Your task to perform on an android device: add a contact Image 0: 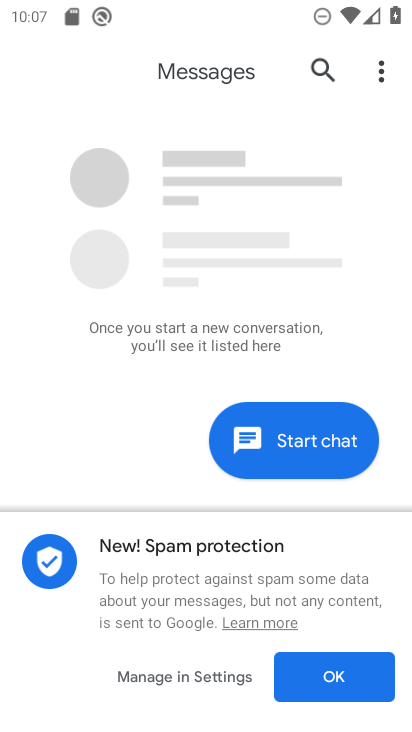
Step 0: press home button
Your task to perform on an android device: add a contact Image 1: 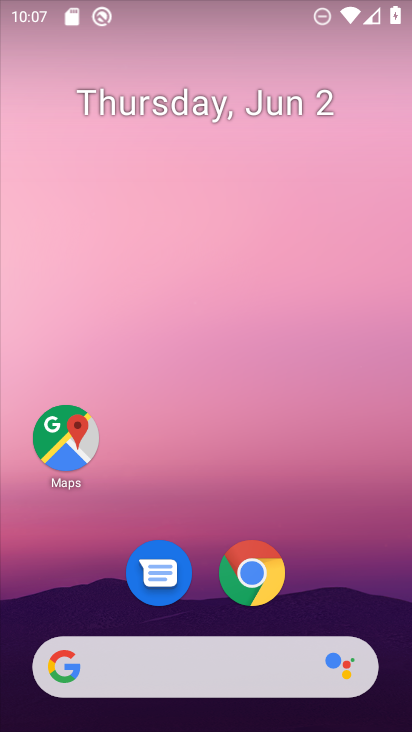
Step 1: drag from (333, 562) to (334, 255)
Your task to perform on an android device: add a contact Image 2: 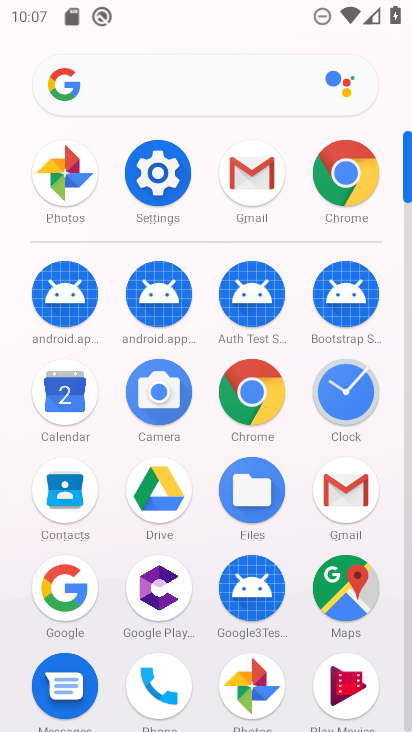
Step 2: click (72, 493)
Your task to perform on an android device: add a contact Image 3: 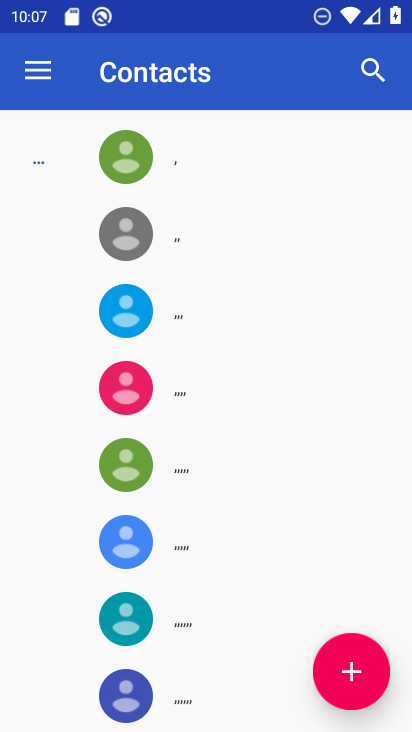
Step 3: click (343, 666)
Your task to perform on an android device: add a contact Image 4: 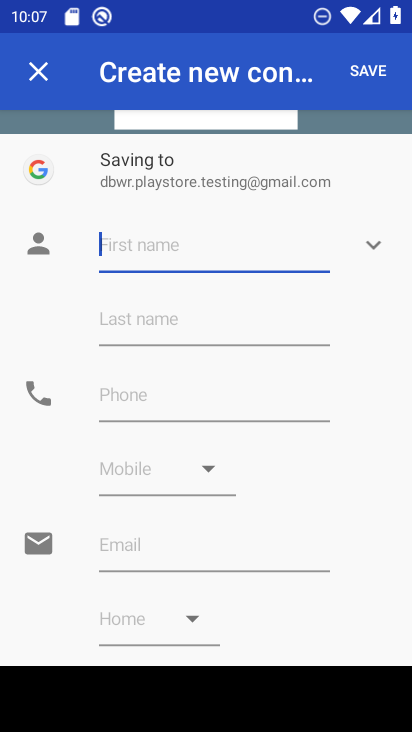
Step 4: click (220, 242)
Your task to perform on an android device: add a contact Image 5: 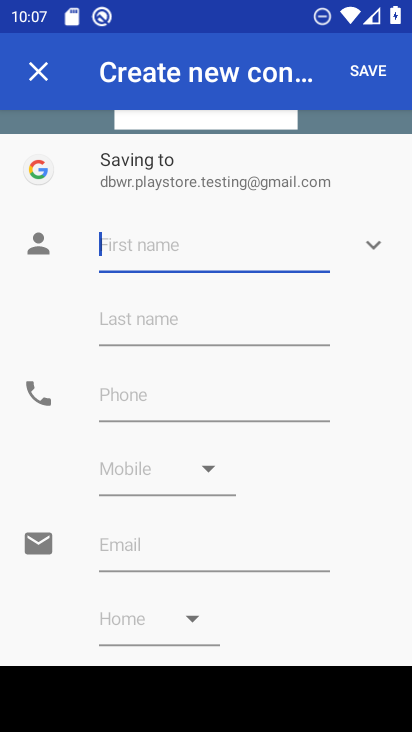
Step 5: type "december"
Your task to perform on an android device: add a contact Image 6: 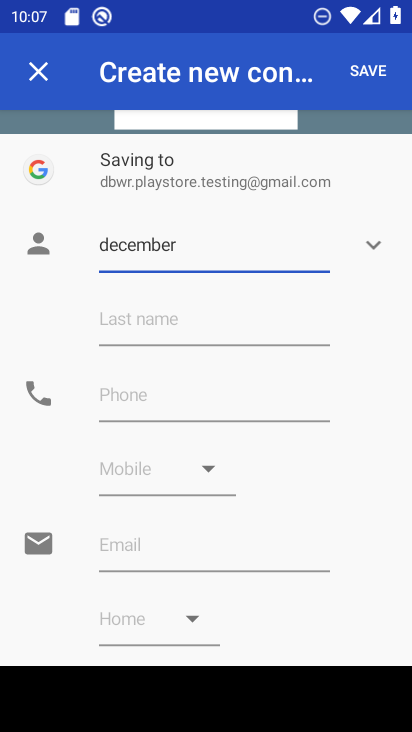
Step 6: click (366, 70)
Your task to perform on an android device: add a contact Image 7: 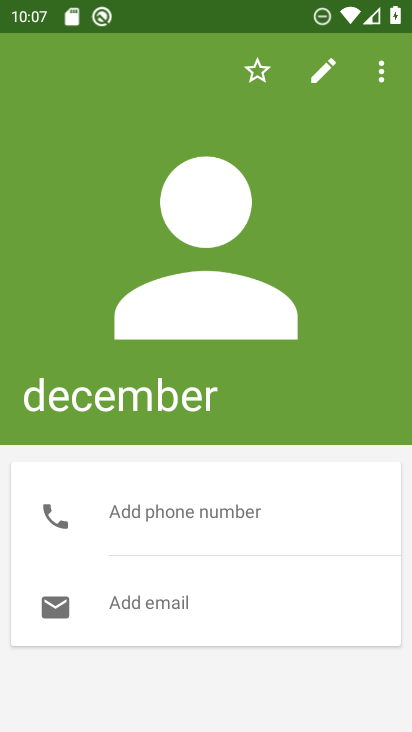
Step 7: task complete